Your task to perform on an android device: Search for sushi restaurants on Maps Image 0: 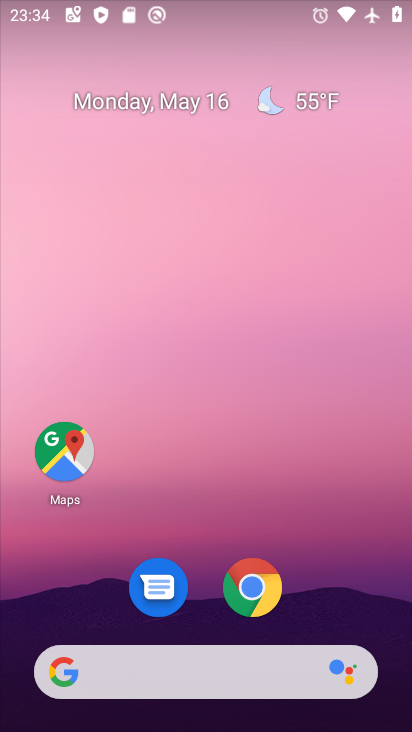
Step 0: drag from (328, 589) to (257, 38)
Your task to perform on an android device: Search for sushi restaurants on Maps Image 1: 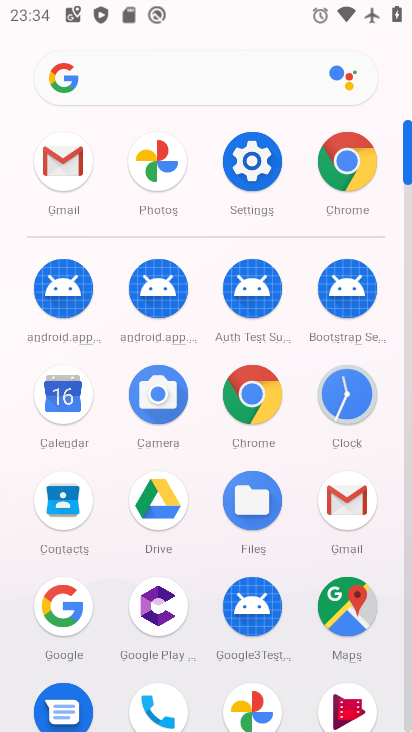
Step 1: drag from (22, 546) to (15, 283)
Your task to perform on an android device: Search for sushi restaurants on Maps Image 2: 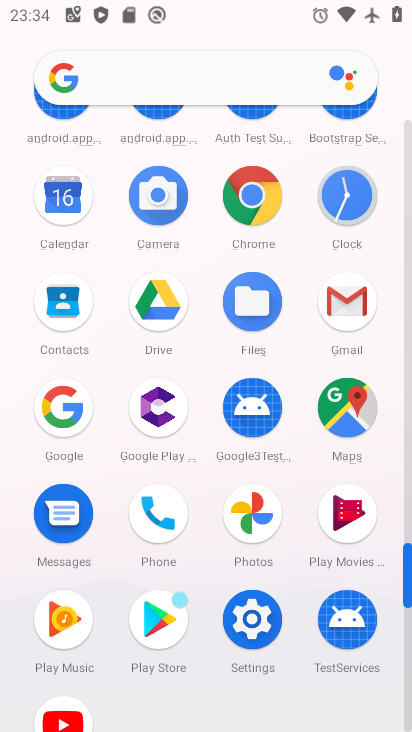
Step 2: click (342, 408)
Your task to perform on an android device: Search for sushi restaurants on Maps Image 3: 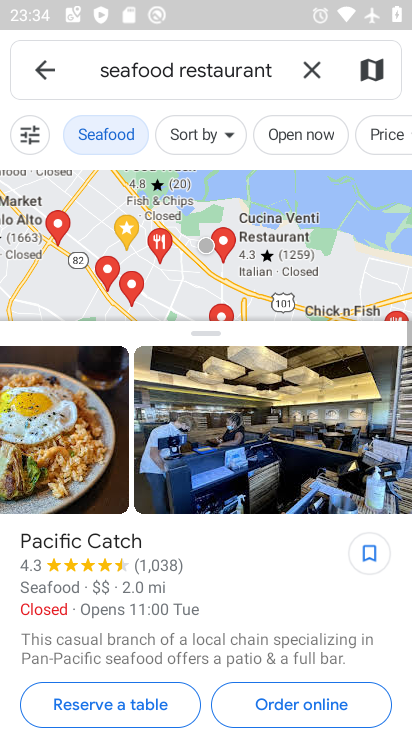
Step 3: click (310, 72)
Your task to perform on an android device: Search for sushi restaurants on Maps Image 4: 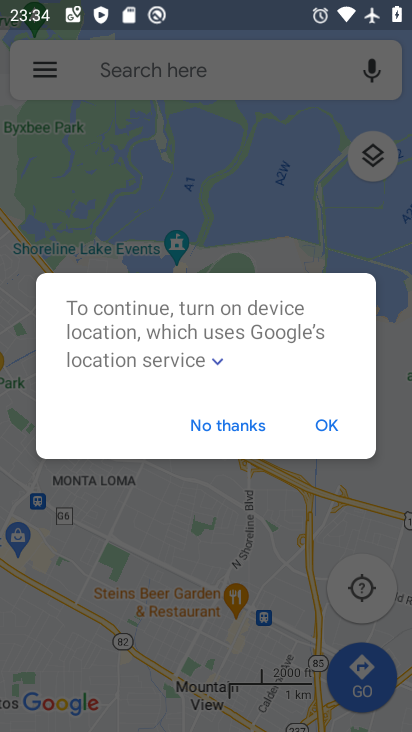
Step 4: click (226, 426)
Your task to perform on an android device: Search for sushi restaurants on Maps Image 5: 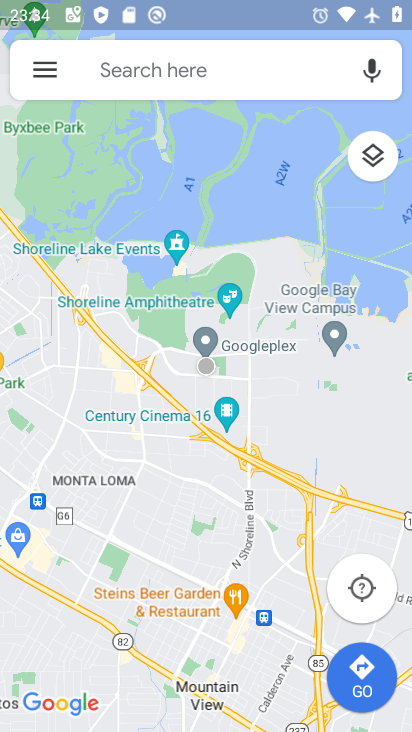
Step 5: click (227, 73)
Your task to perform on an android device: Search for sushi restaurants on Maps Image 6: 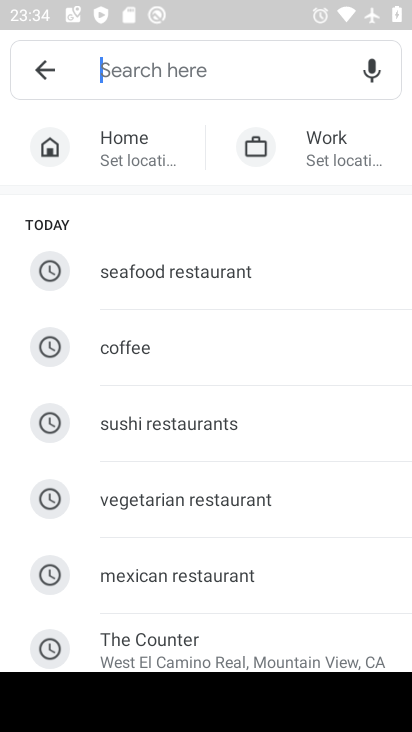
Step 6: click (217, 432)
Your task to perform on an android device: Search for sushi restaurants on Maps Image 7: 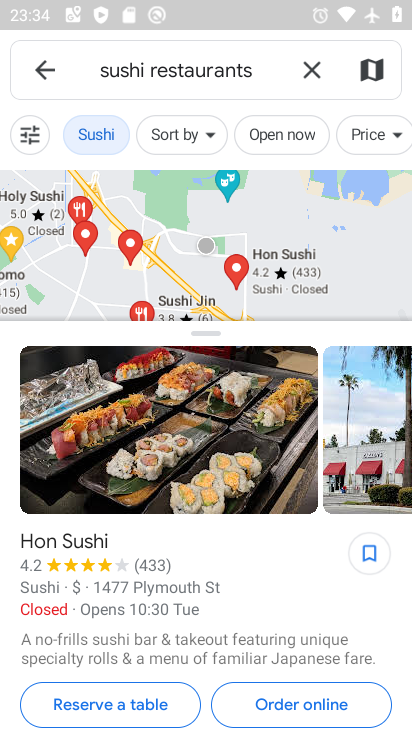
Step 7: task complete